Your task to perform on an android device: Search for jbl charge 4 on walmart.com, select the first entry, and add it to the cart. Image 0: 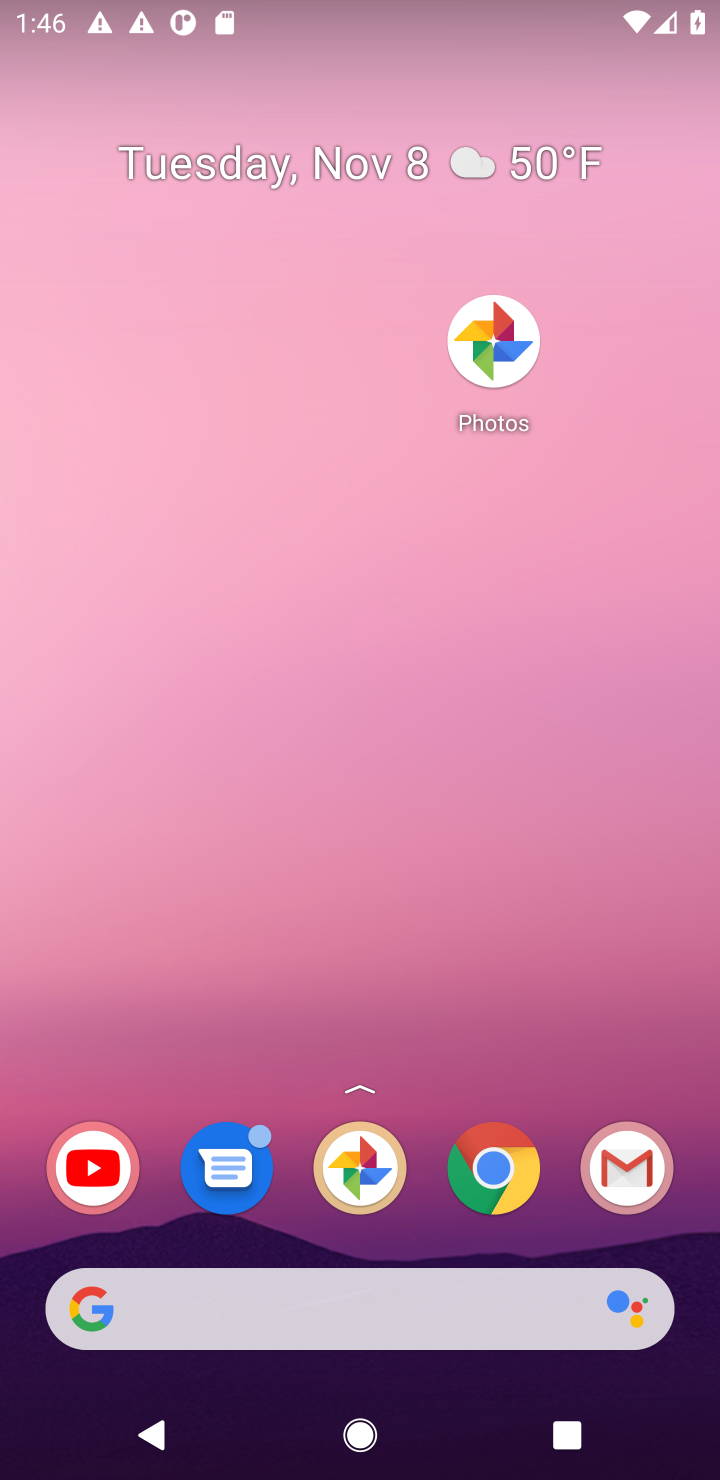
Step 0: drag from (339, 1251) to (463, 221)
Your task to perform on an android device: Search for jbl charge 4 on walmart.com, select the first entry, and add it to the cart. Image 1: 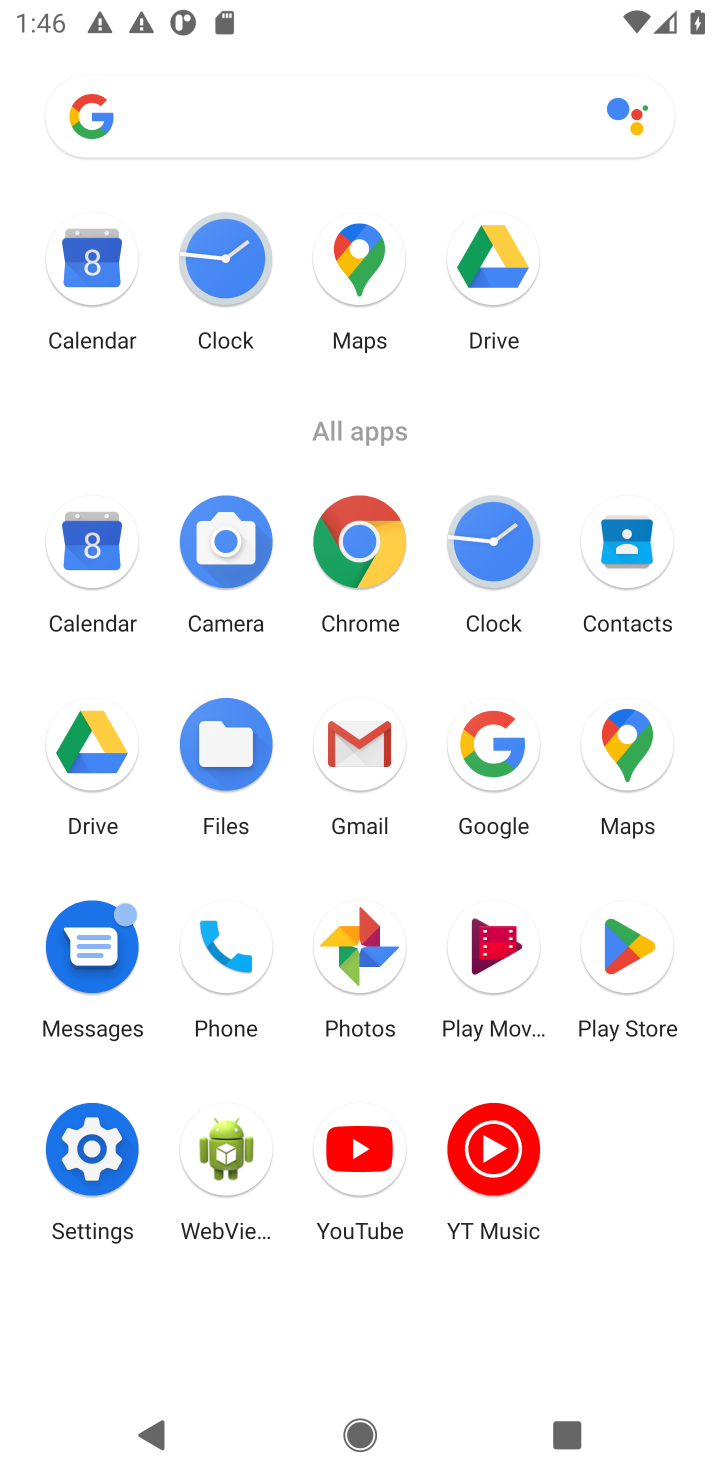
Step 1: click (350, 572)
Your task to perform on an android device: Search for jbl charge 4 on walmart.com, select the first entry, and add it to the cart. Image 2: 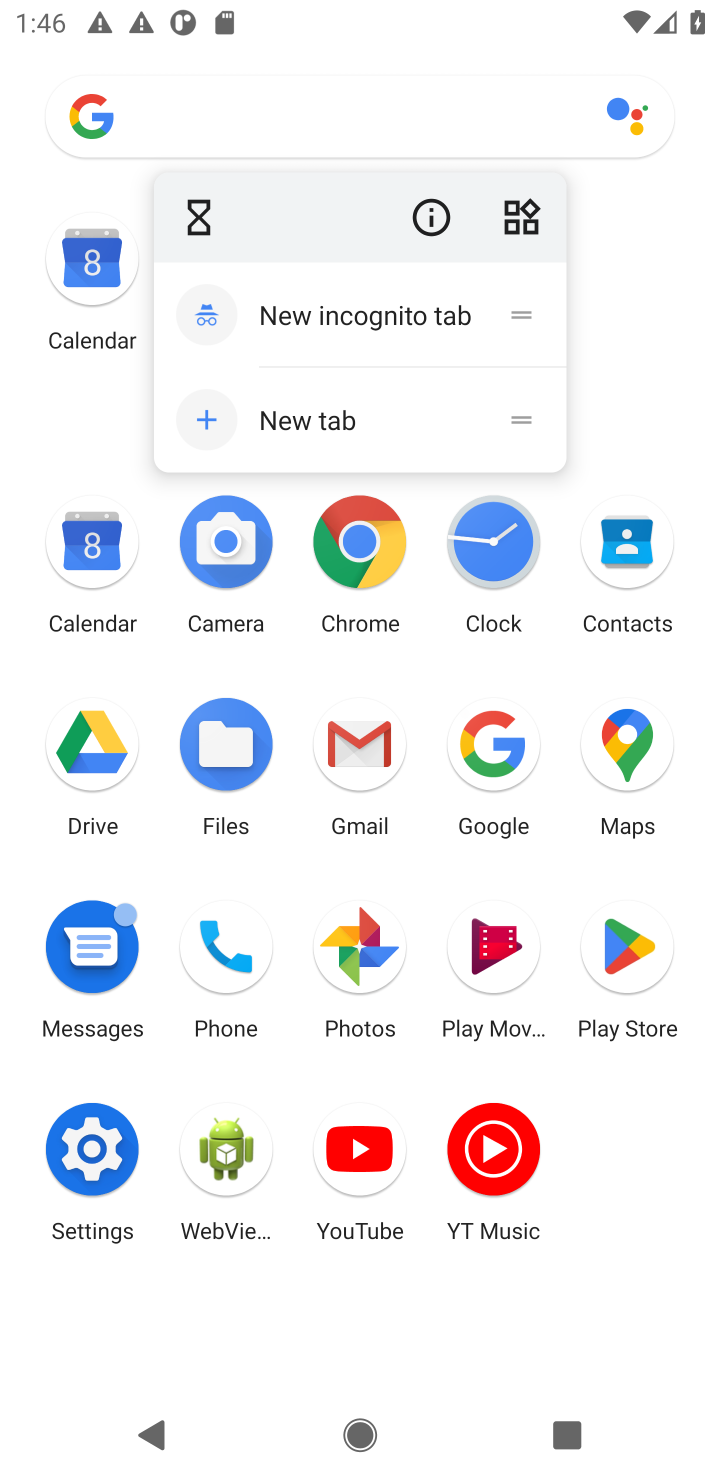
Step 2: click (350, 572)
Your task to perform on an android device: Search for jbl charge 4 on walmart.com, select the first entry, and add it to the cart. Image 3: 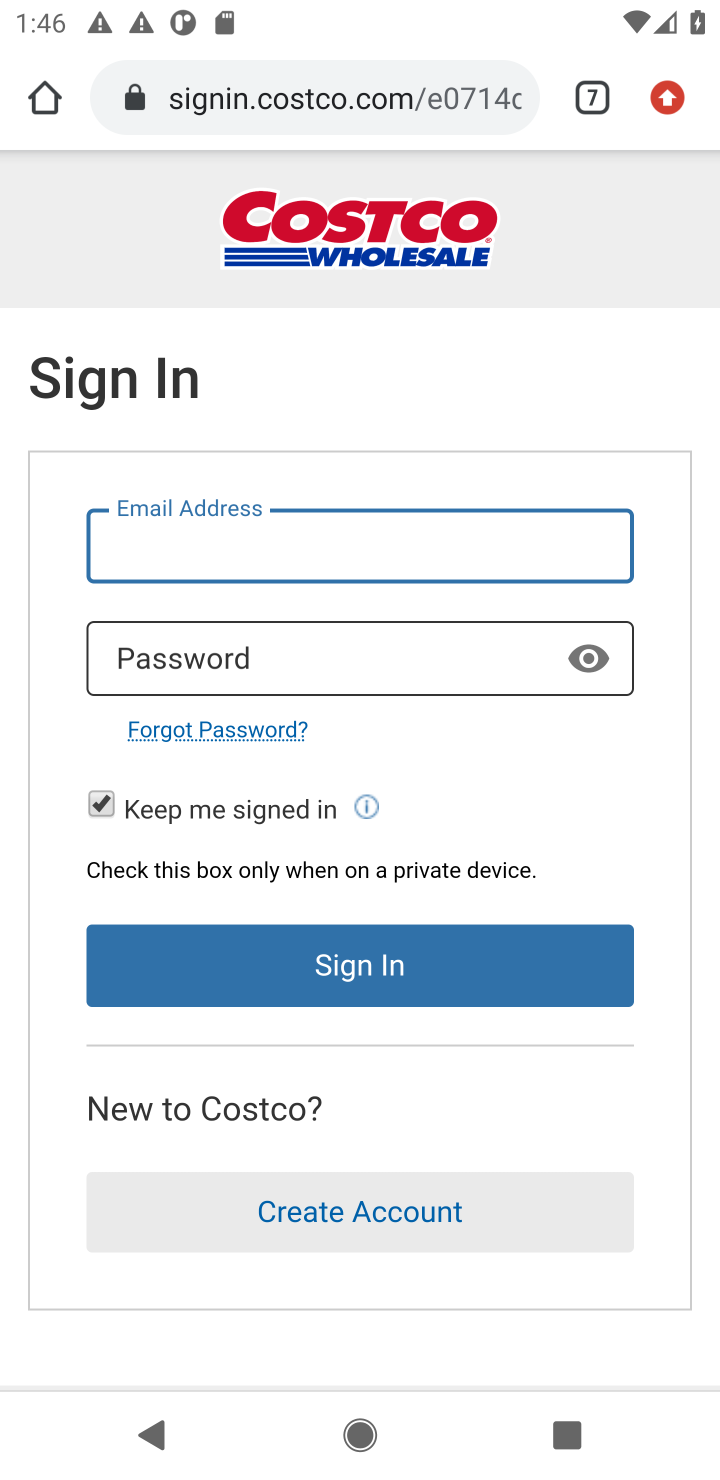
Step 3: click (295, 109)
Your task to perform on an android device: Search for jbl charge 4 on walmart.com, select the first entry, and add it to the cart. Image 4: 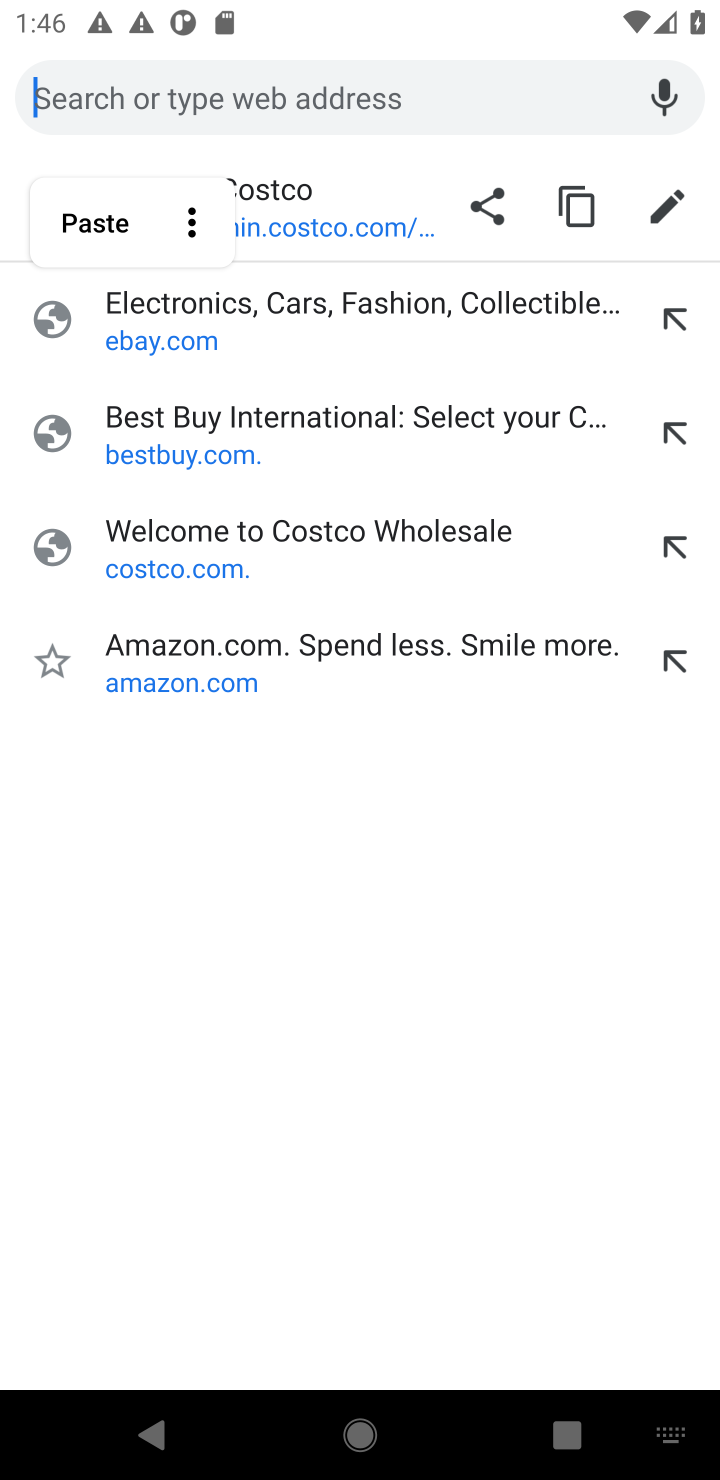
Step 4: type " walmart.com"
Your task to perform on an android device: Search for jbl charge 4 on walmart.com, select the first entry, and add it to the cart. Image 5: 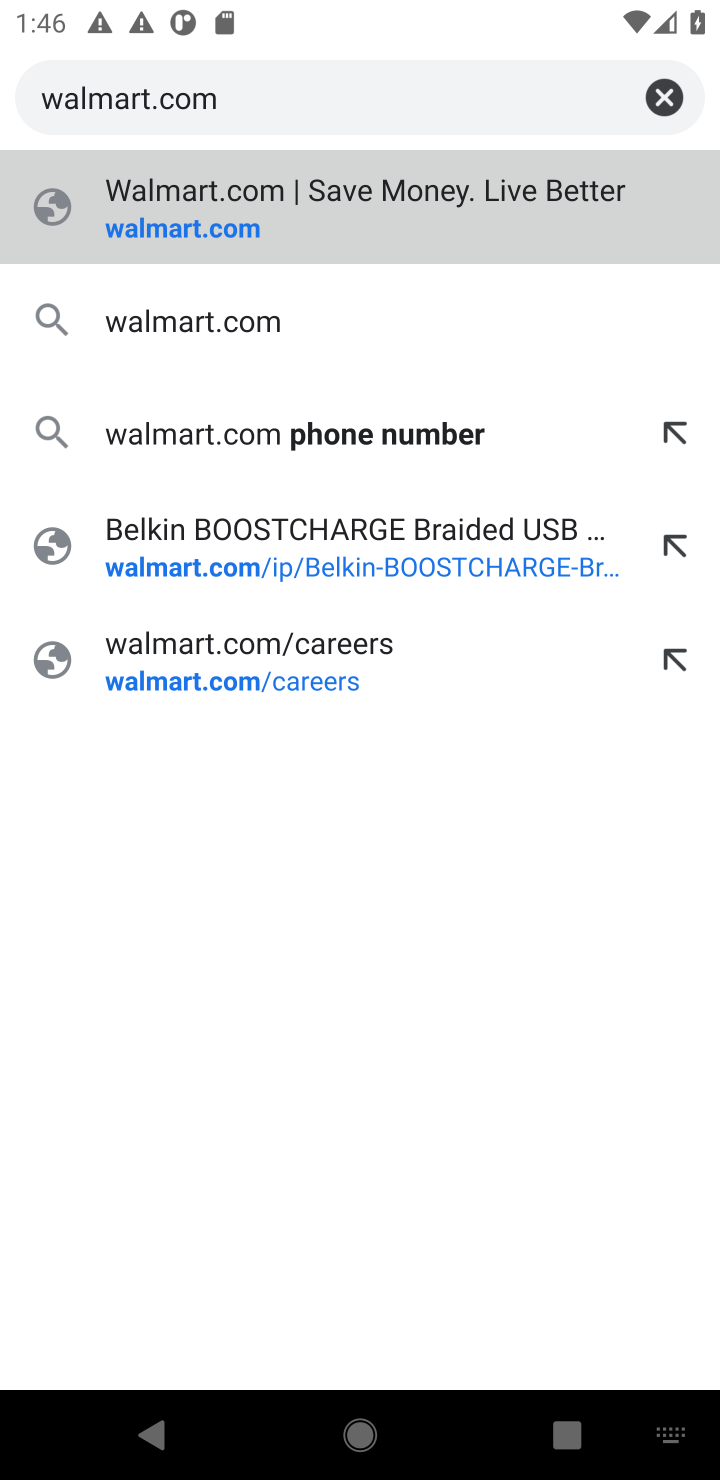
Step 5: press enter
Your task to perform on an android device: Search for jbl charge 4 on walmart.com, select the first entry, and add it to the cart. Image 6: 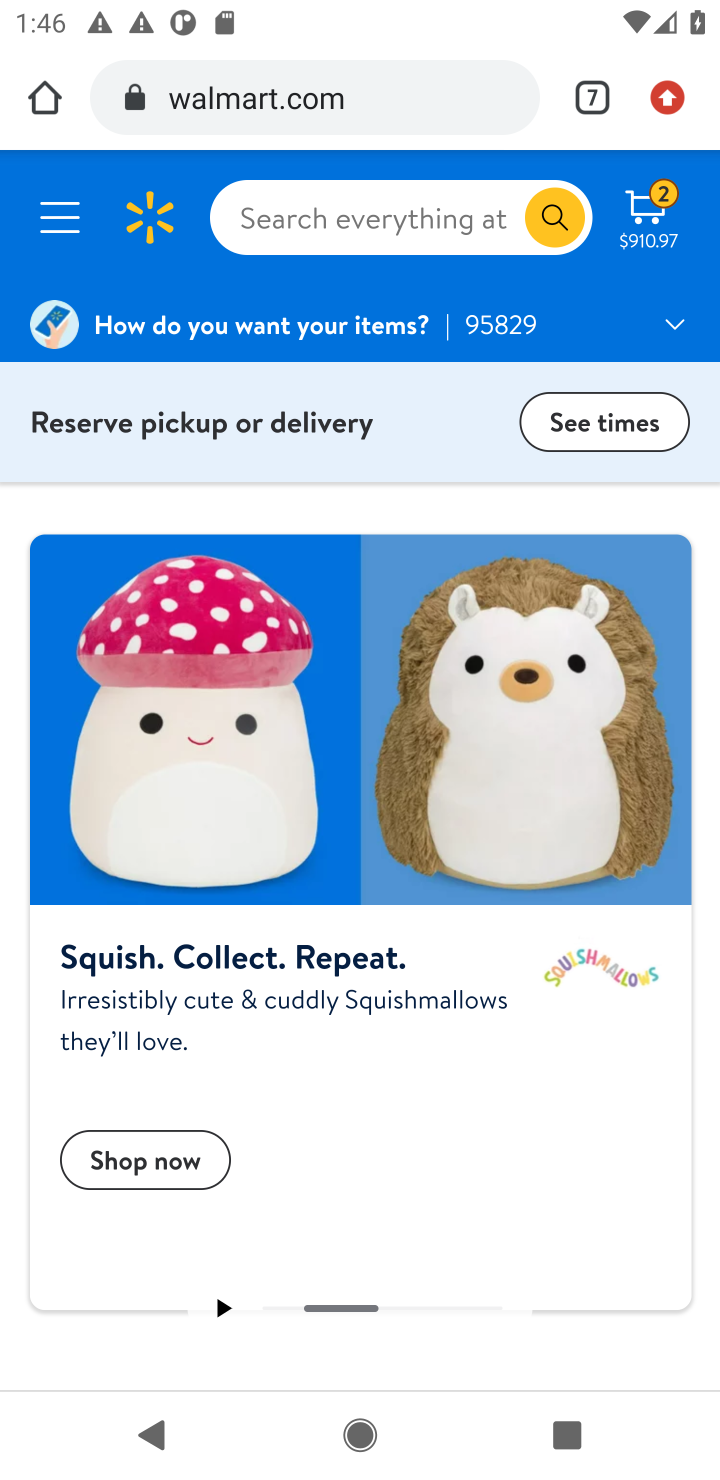
Step 6: click (345, 184)
Your task to perform on an android device: Search for jbl charge 4 on walmart.com, select the first entry, and add it to the cart. Image 7: 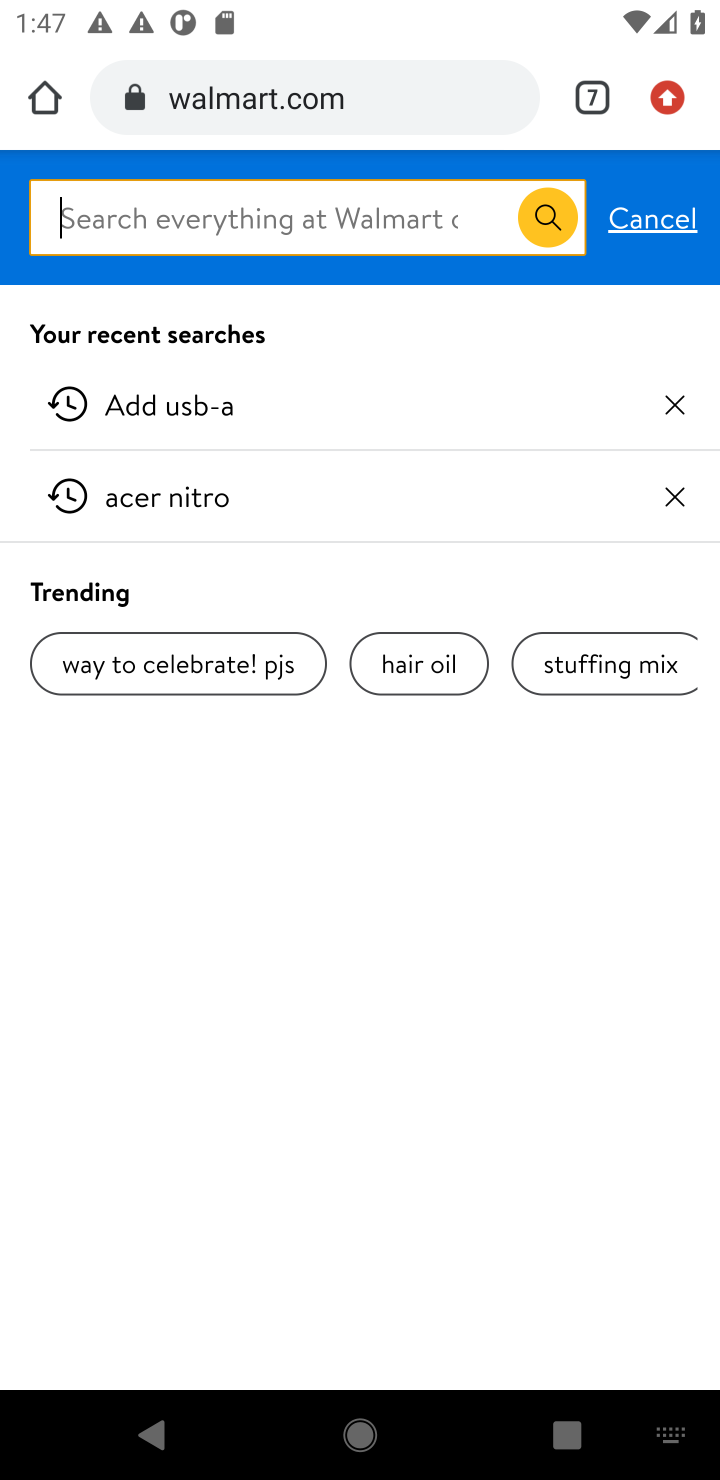
Step 7: type " jbl charge 4"
Your task to perform on an android device: Search for jbl charge 4 on walmart.com, select the first entry, and add it to the cart. Image 8: 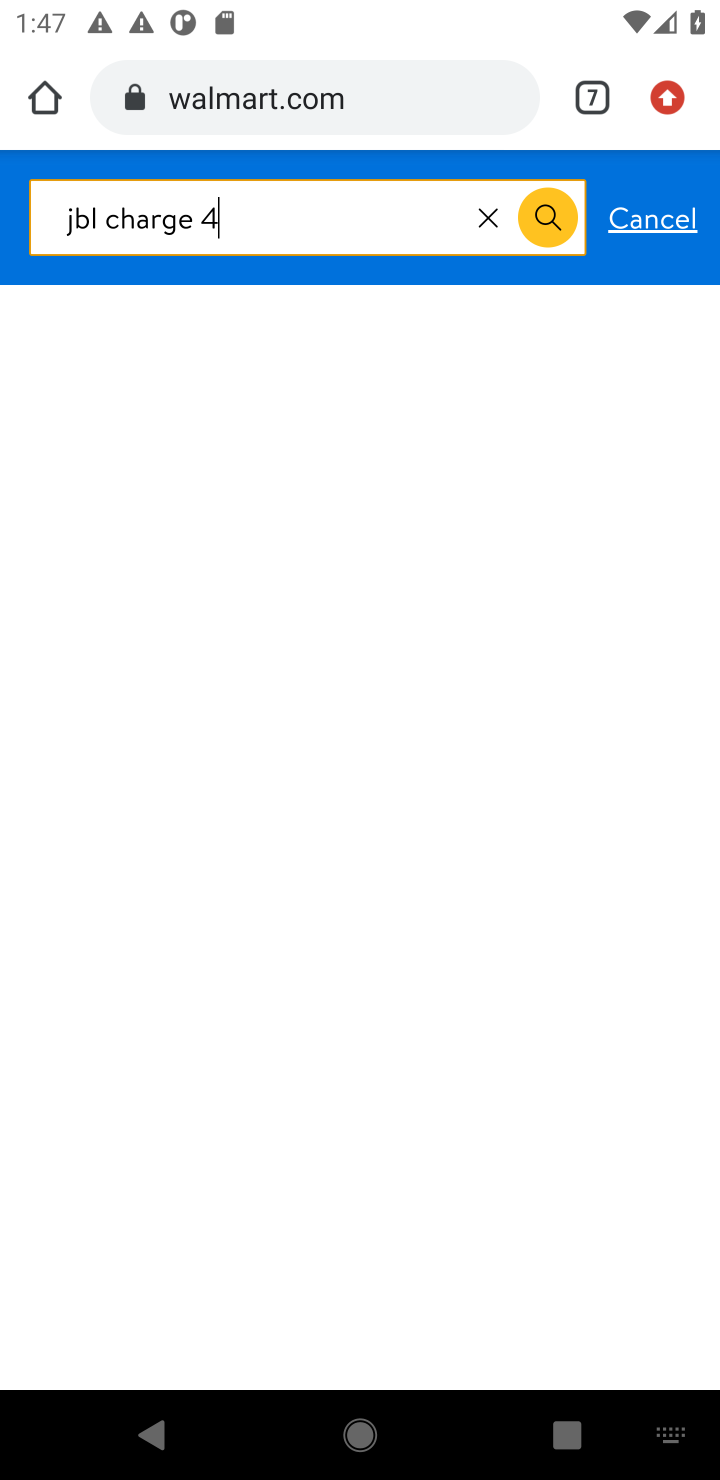
Step 8: press enter
Your task to perform on an android device: Search for jbl charge 4 on walmart.com, select the first entry, and add it to the cart. Image 9: 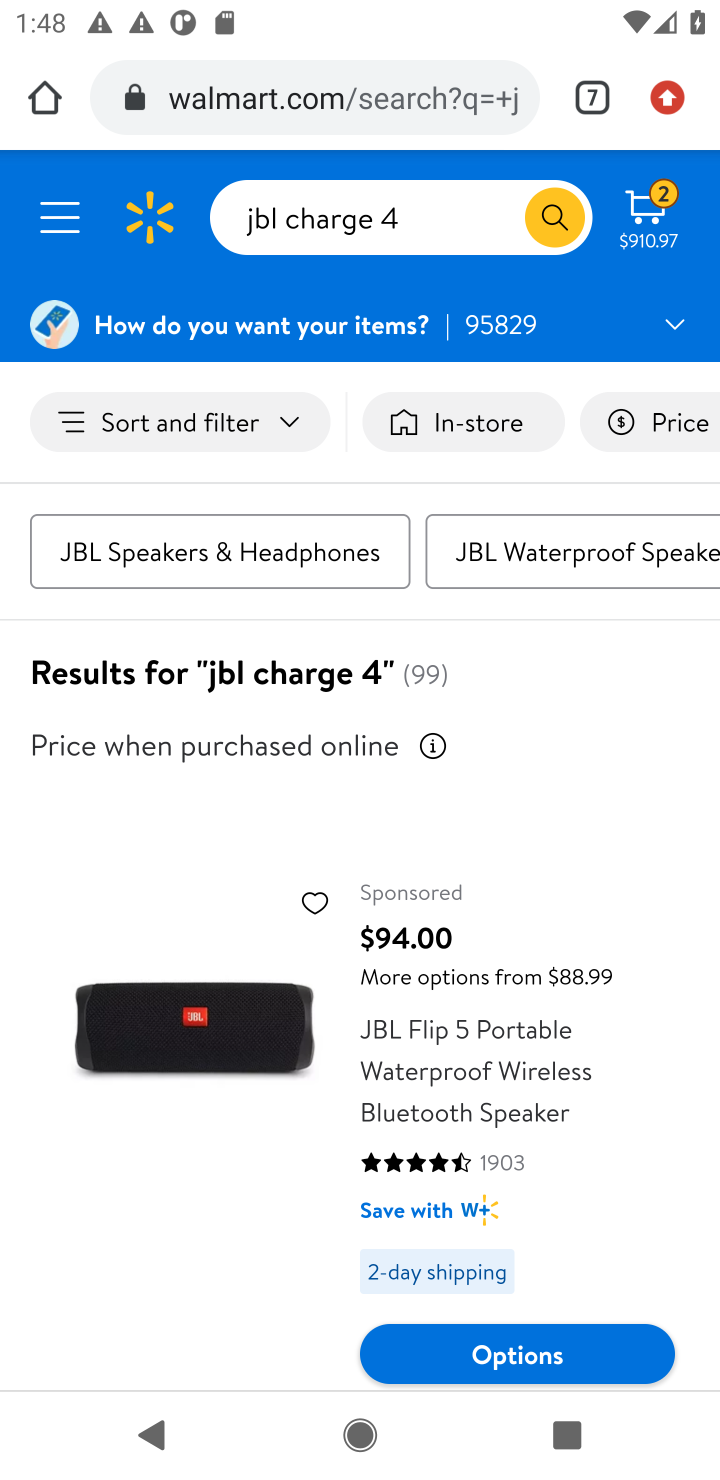
Step 9: drag from (542, 928) to (546, 862)
Your task to perform on an android device: Search for jbl charge 4 on walmart.com, select the first entry, and add it to the cart. Image 10: 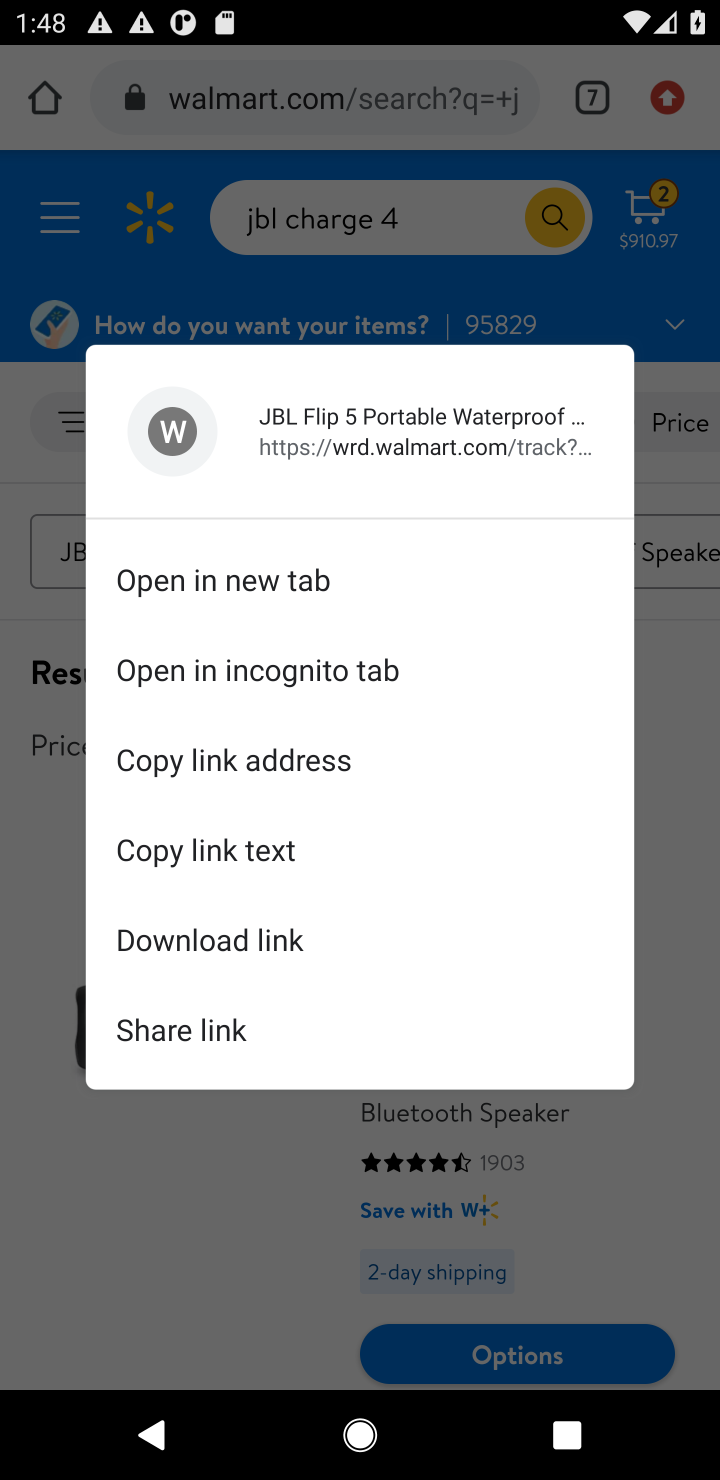
Step 10: click (631, 1193)
Your task to perform on an android device: Search for jbl charge 4 on walmart.com, select the first entry, and add it to the cart. Image 11: 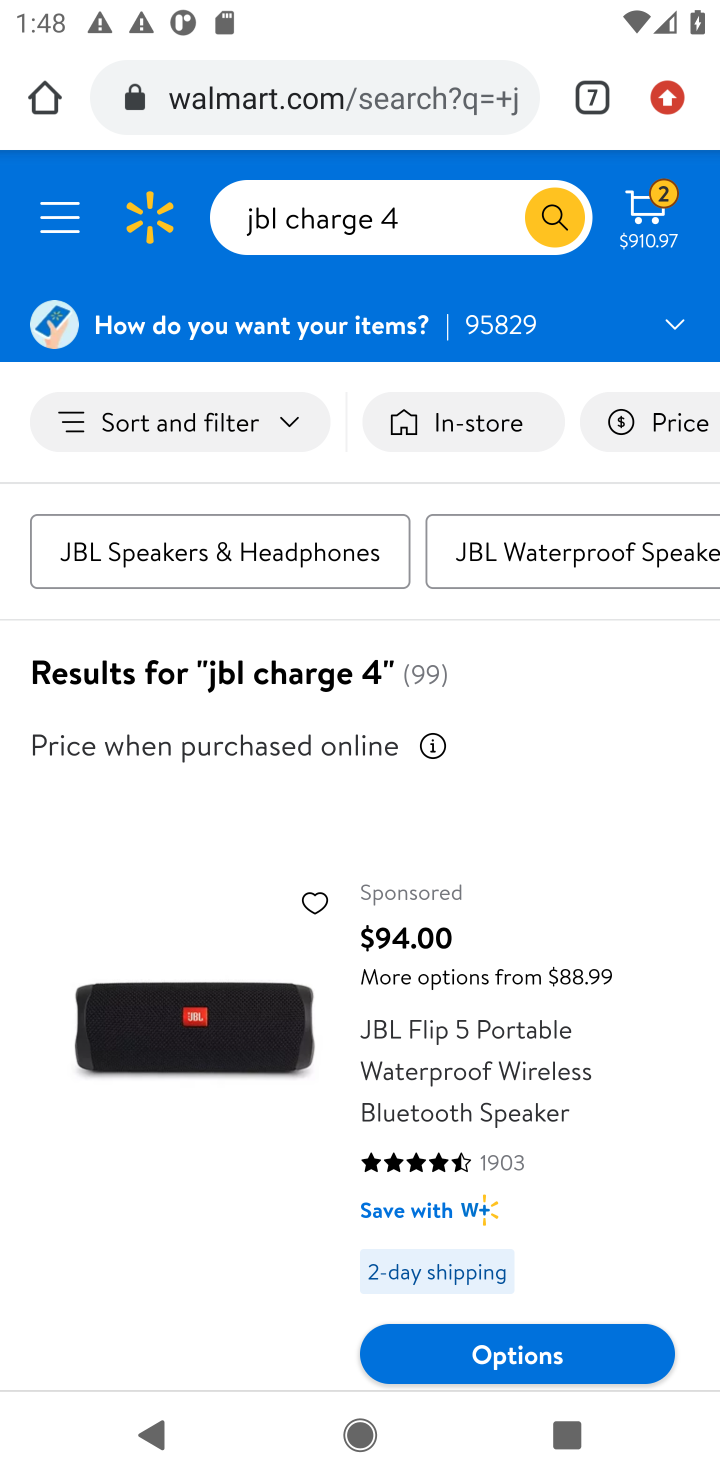
Step 11: drag from (308, 1009) to (289, 533)
Your task to perform on an android device: Search for jbl charge 4 on walmart.com, select the first entry, and add it to the cart. Image 12: 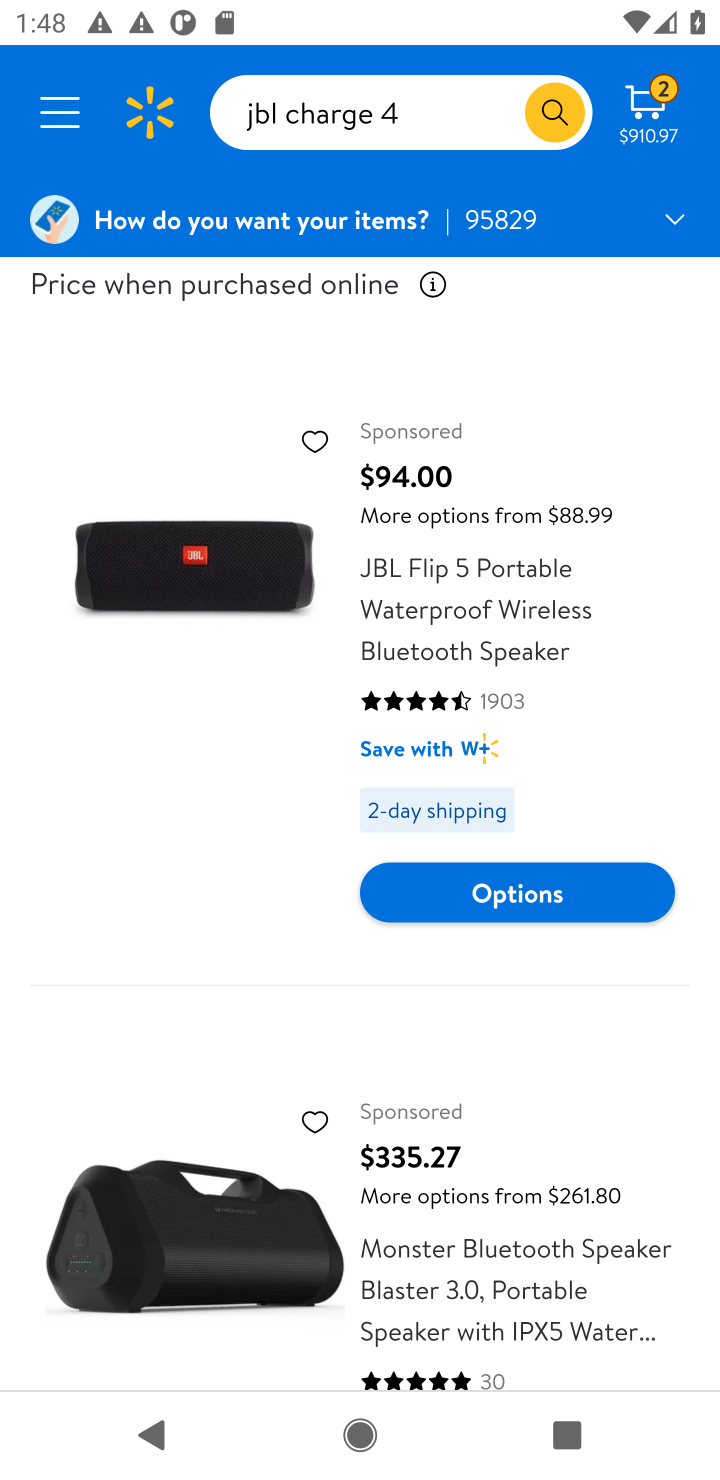
Step 12: drag from (450, 1106) to (529, 848)
Your task to perform on an android device: Search for jbl charge 4 on walmart.com, select the first entry, and add it to the cart. Image 13: 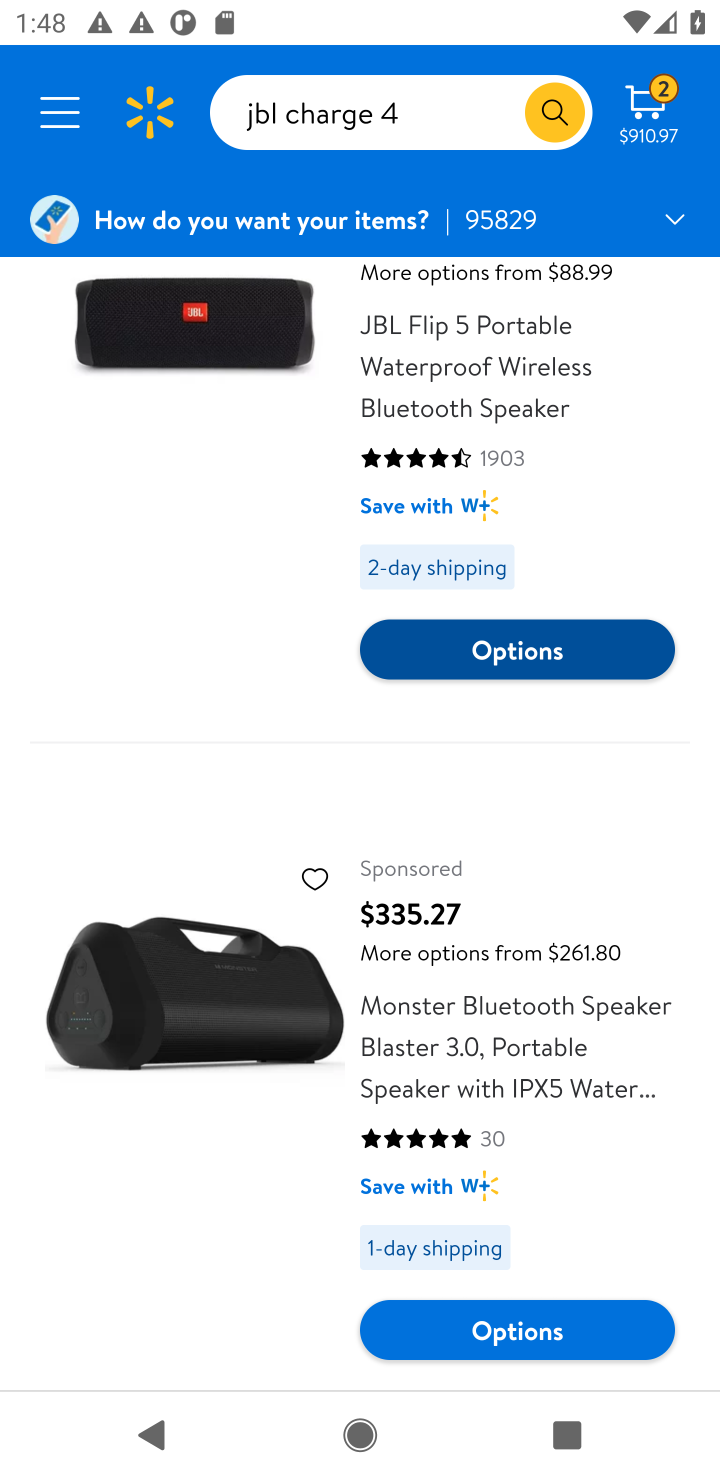
Step 13: click (546, 661)
Your task to perform on an android device: Search for jbl charge 4 on walmart.com, select the first entry, and add it to the cart. Image 14: 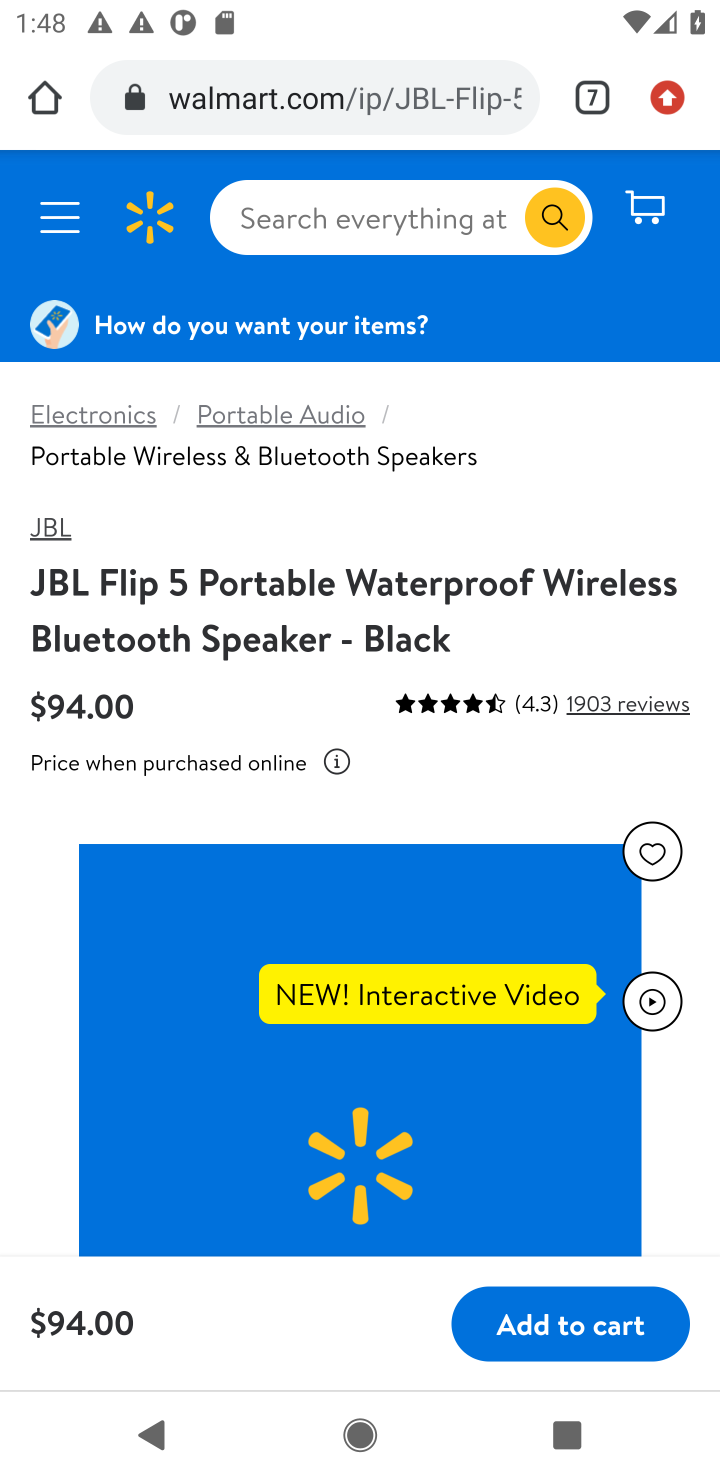
Step 14: click (552, 1326)
Your task to perform on an android device: Search for jbl charge 4 on walmart.com, select the first entry, and add it to the cart. Image 15: 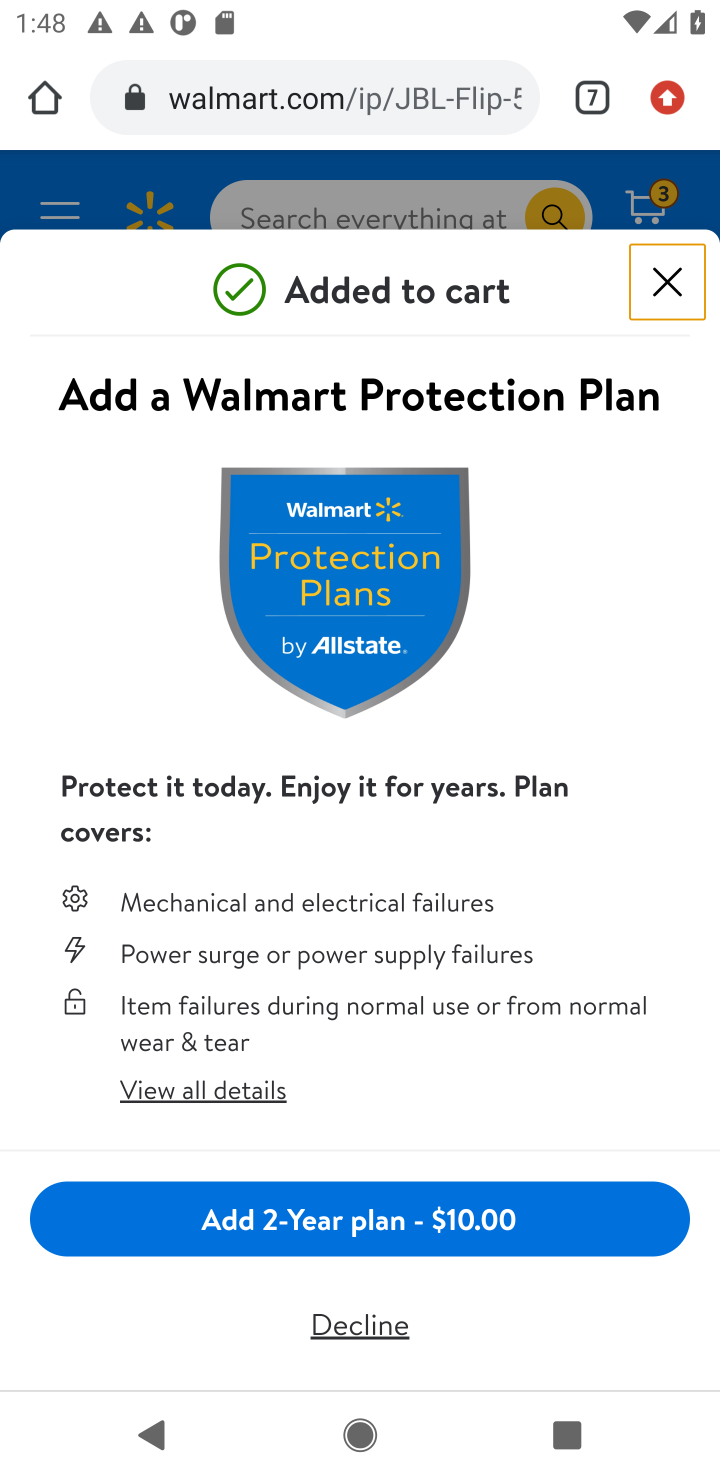
Step 15: drag from (409, 778) to (480, 485)
Your task to perform on an android device: Search for jbl charge 4 on walmart.com, select the first entry, and add it to the cart. Image 16: 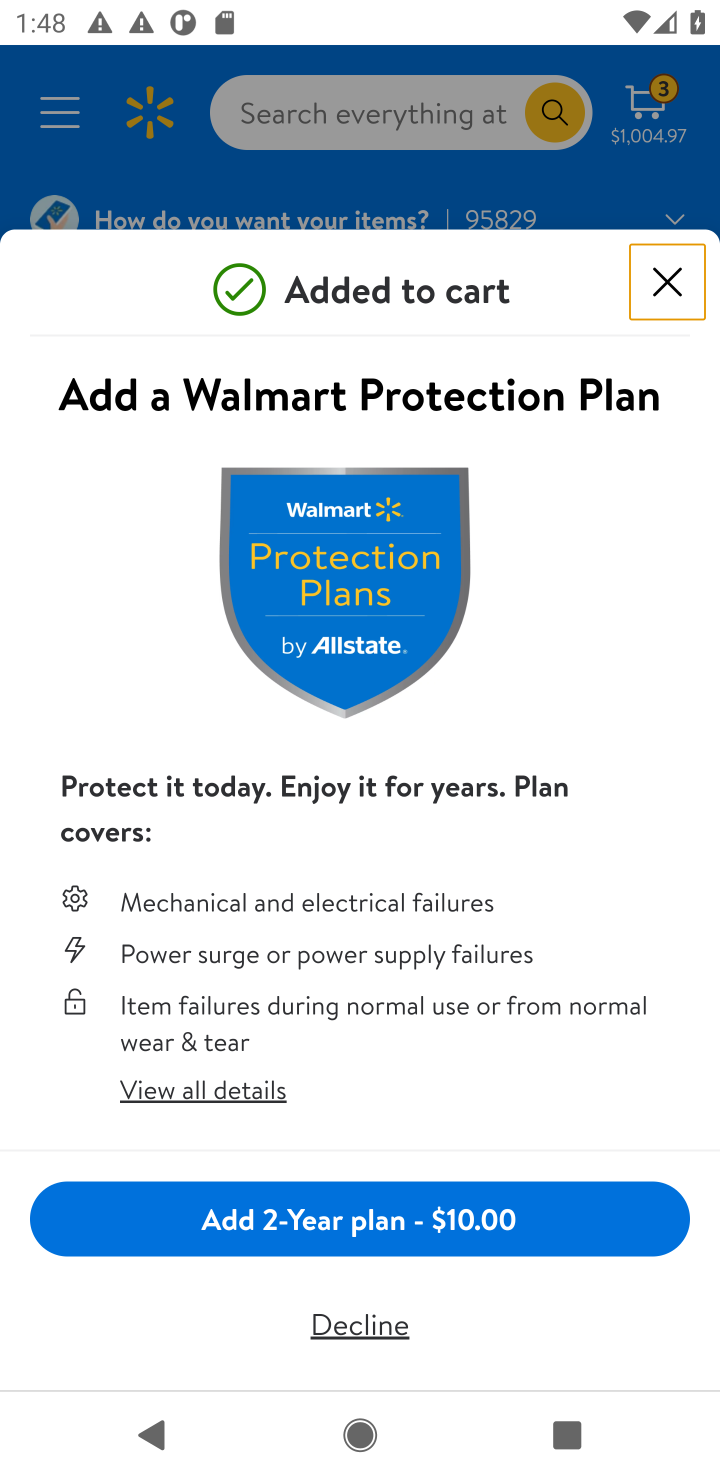
Step 16: click (673, 93)
Your task to perform on an android device: Search for jbl charge 4 on walmart.com, select the first entry, and add it to the cart. Image 17: 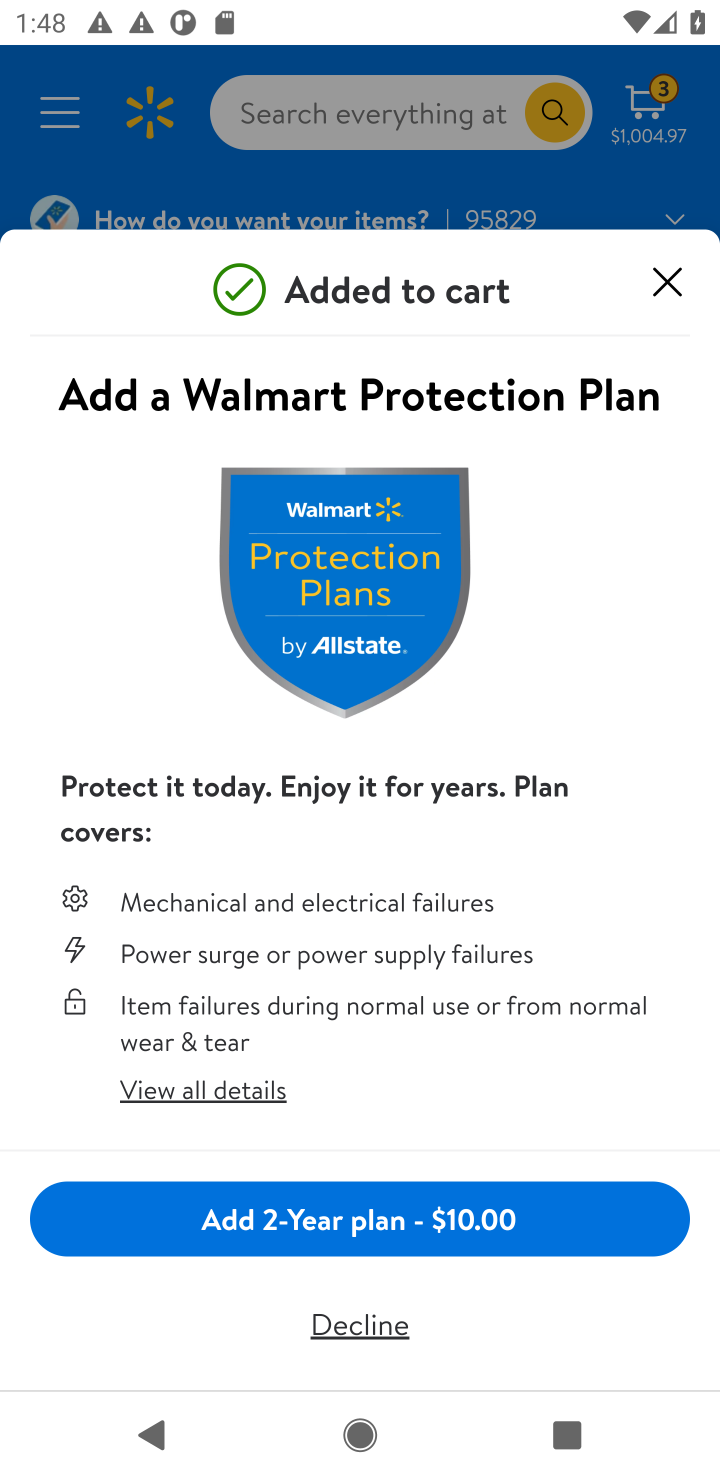
Step 17: click (674, 284)
Your task to perform on an android device: Search for jbl charge 4 on walmart.com, select the first entry, and add it to the cart. Image 18: 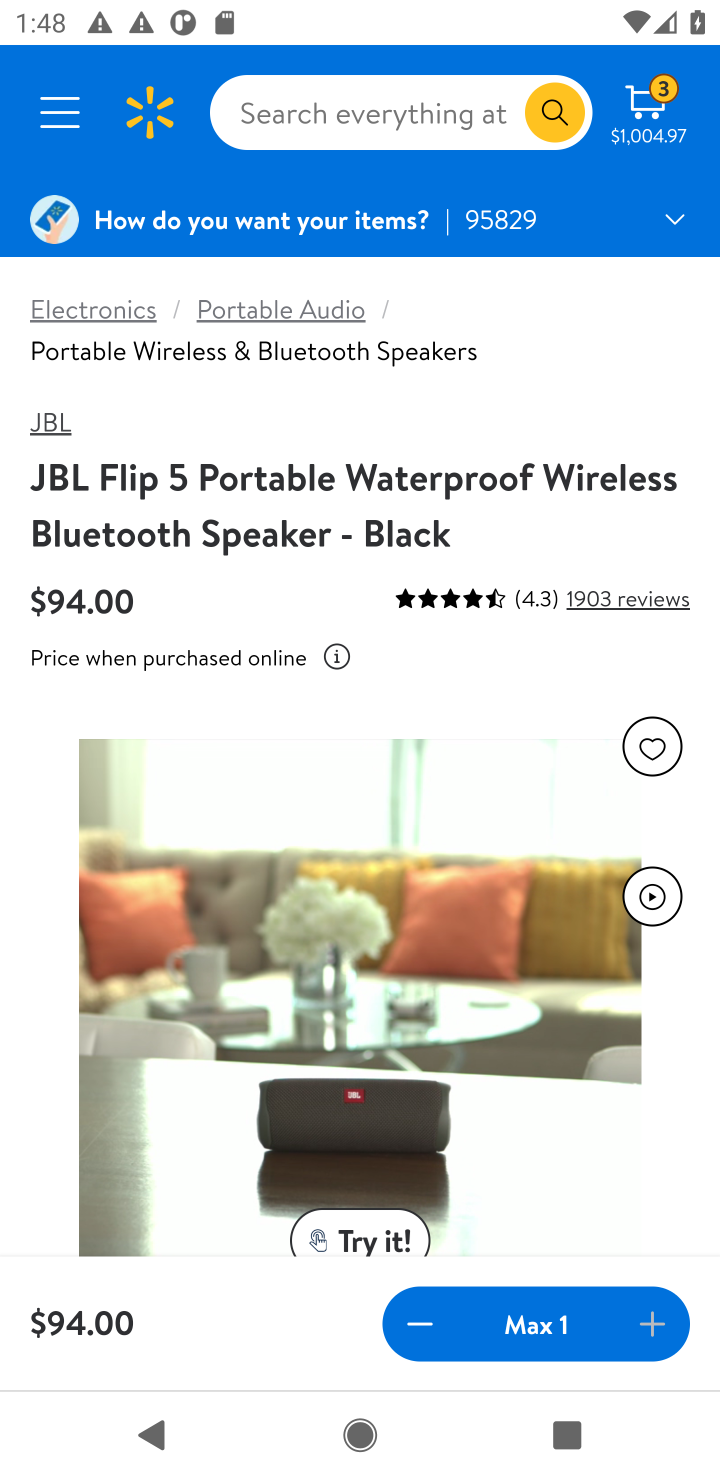
Step 18: click (637, 112)
Your task to perform on an android device: Search for jbl charge 4 on walmart.com, select the first entry, and add it to the cart. Image 19: 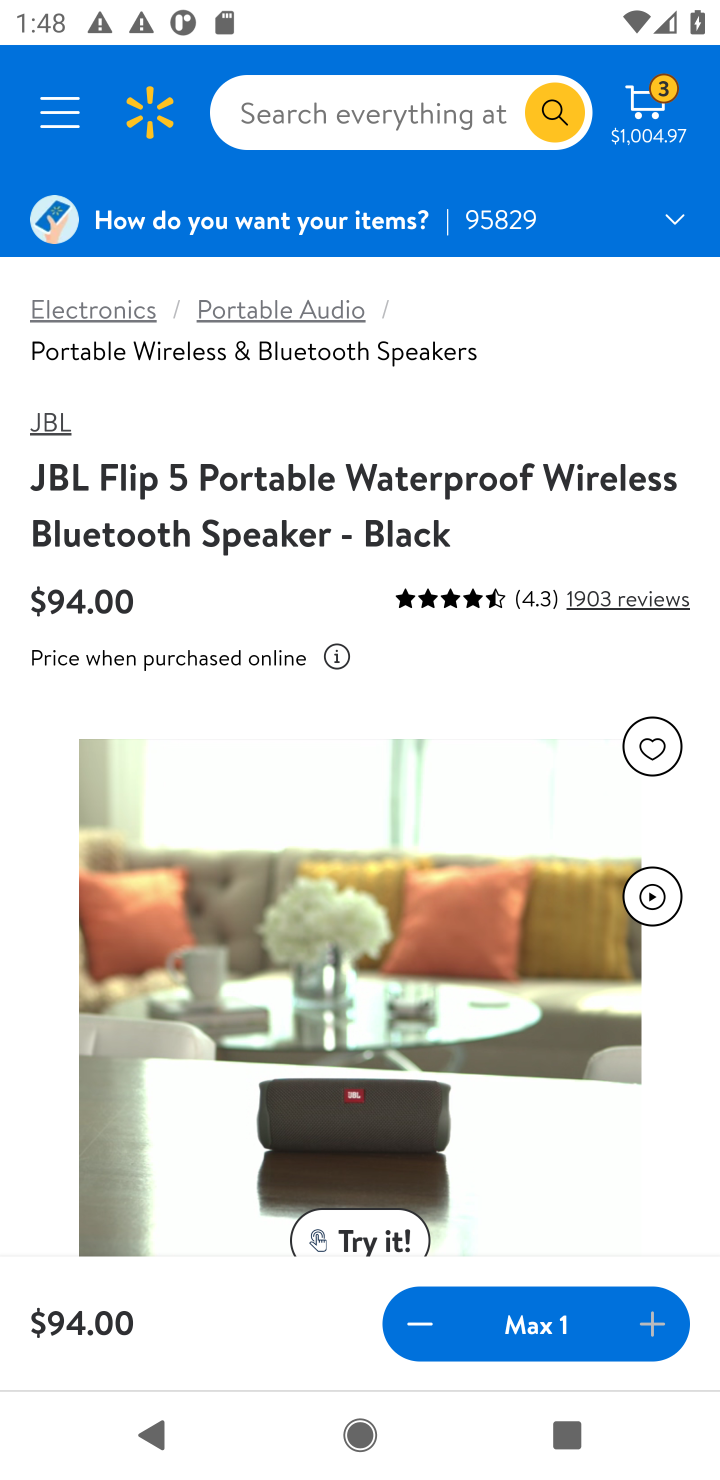
Step 19: click (654, 116)
Your task to perform on an android device: Search for jbl charge 4 on walmart.com, select the first entry, and add it to the cart. Image 20: 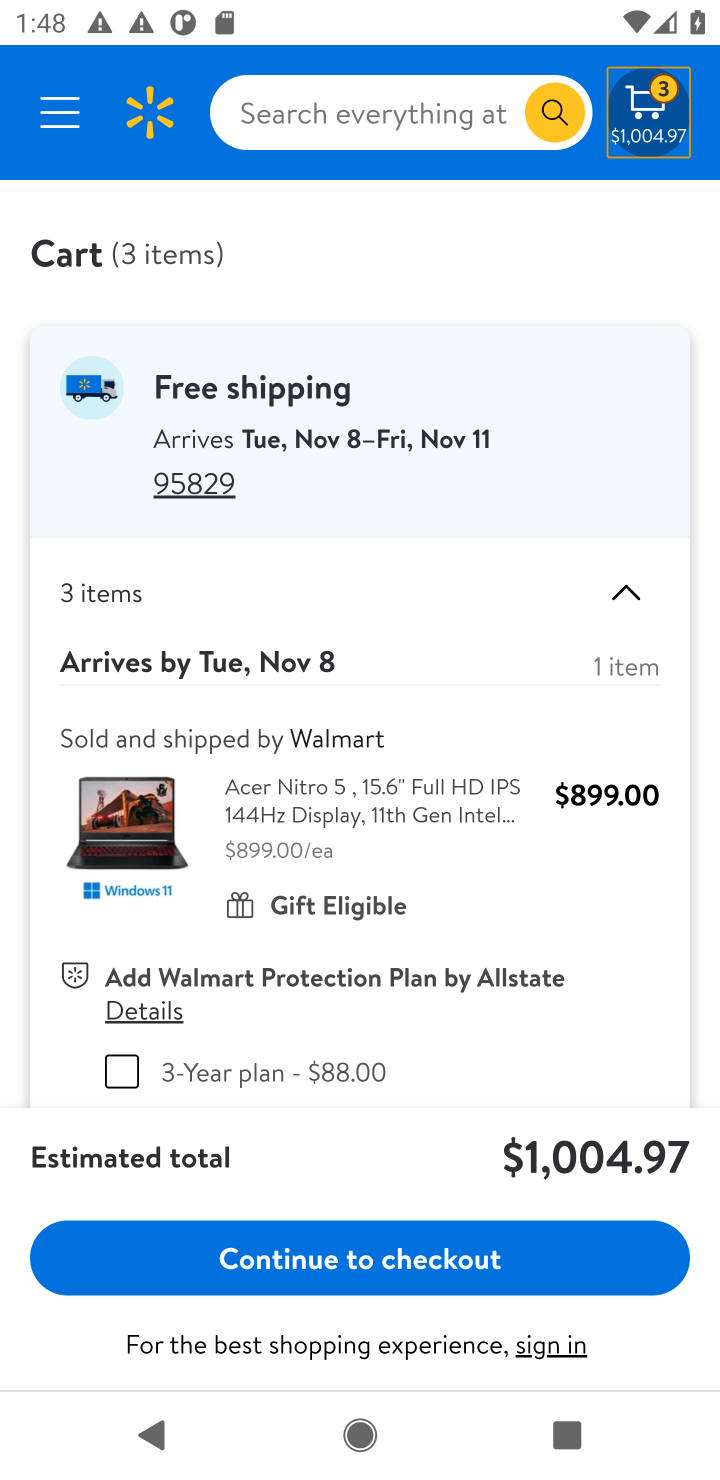
Step 20: click (303, 1258)
Your task to perform on an android device: Search for jbl charge 4 on walmart.com, select the first entry, and add it to the cart. Image 21: 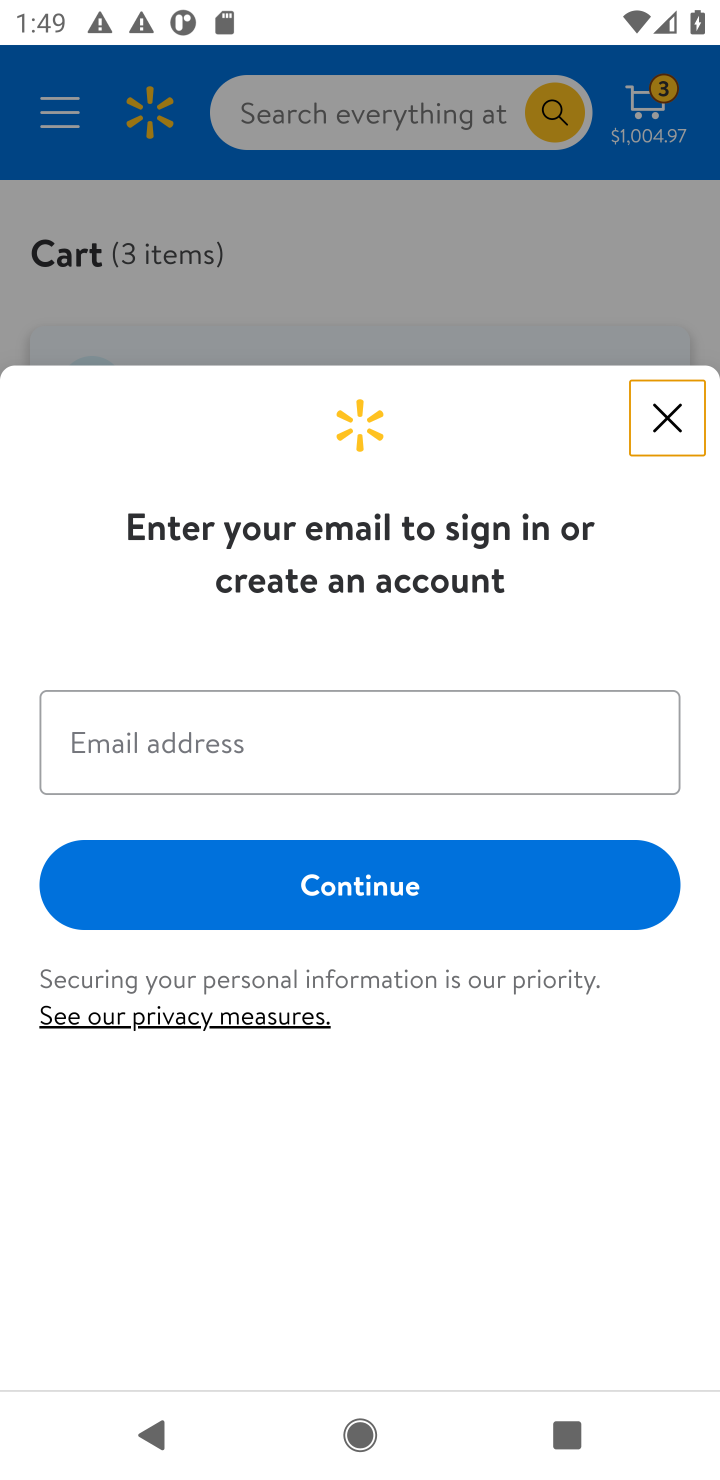
Step 21: task complete